Your task to perform on an android device: open app "Roku - Official Remote Control" (install if not already installed) Image 0: 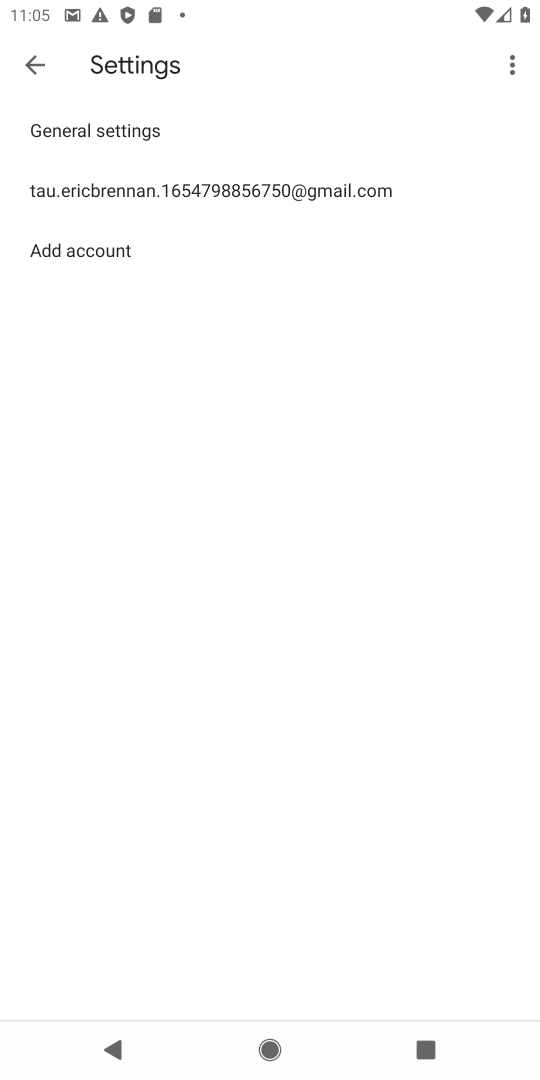
Step 0: press home button
Your task to perform on an android device: open app "Roku - Official Remote Control" (install if not already installed) Image 1: 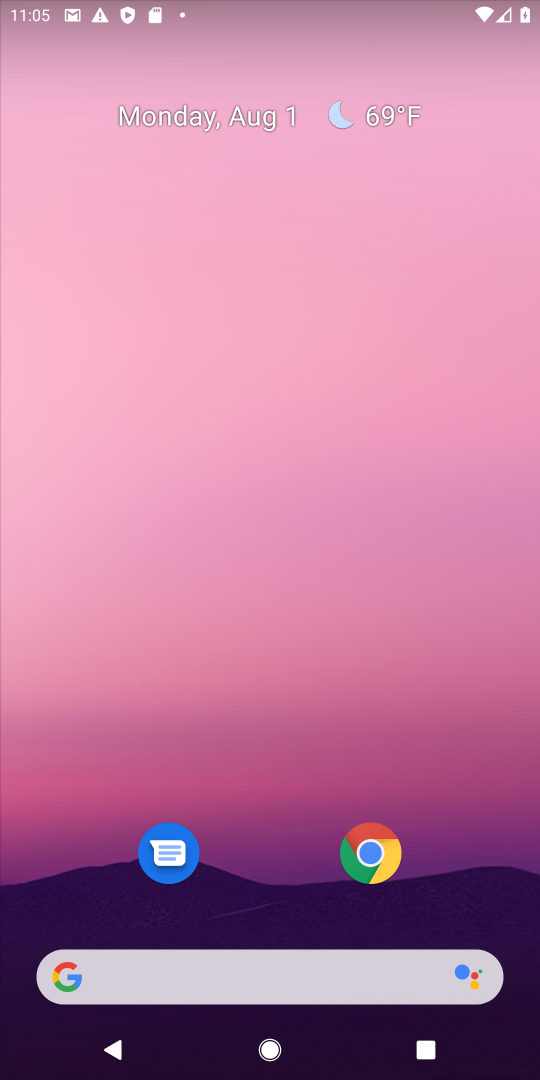
Step 1: drag from (168, 816) to (316, 74)
Your task to perform on an android device: open app "Roku - Official Remote Control" (install if not already installed) Image 2: 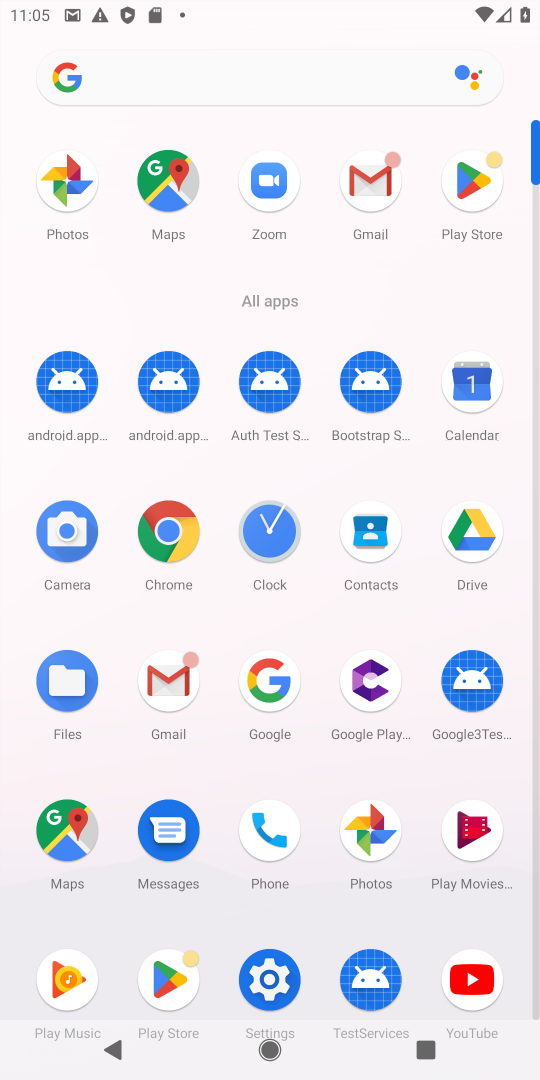
Step 2: click (465, 157)
Your task to perform on an android device: open app "Roku - Official Remote Control" (install if not already installed) Image 3: 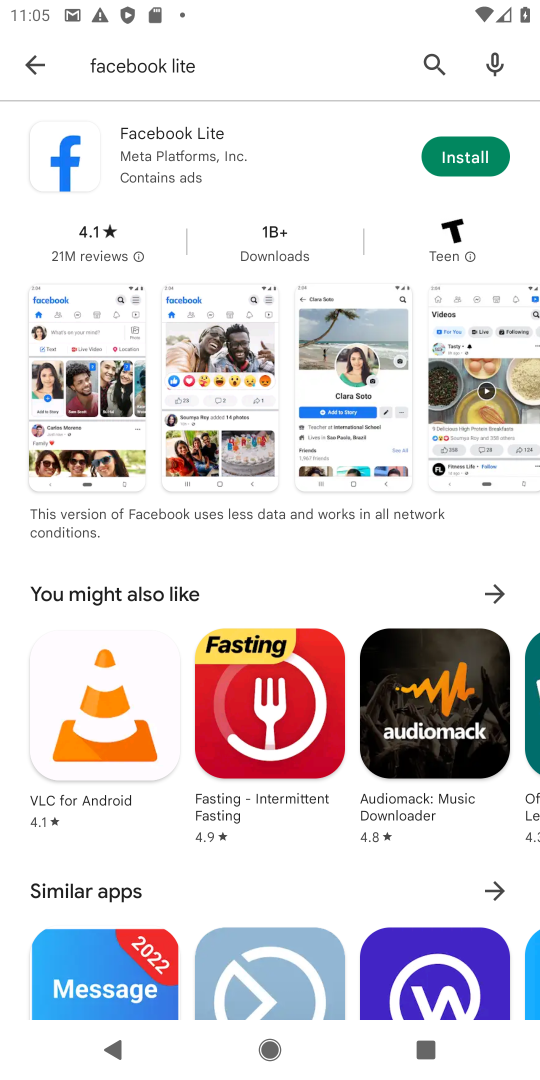
Step 3: click (438, 59)
Your task to perform on an android device: open app "Roku - Official Remote Control" (install if not already installed) Image 4: 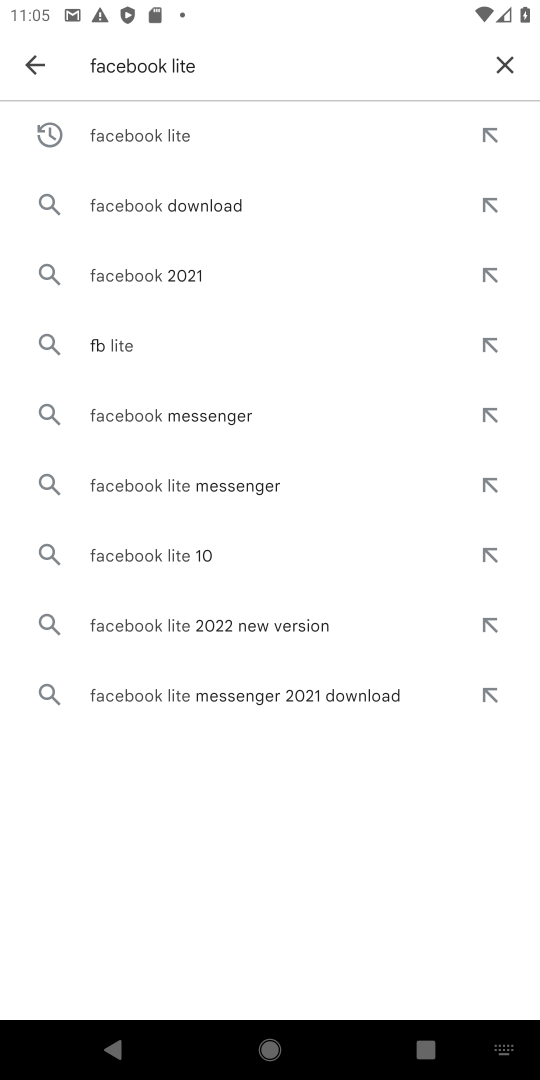
Step 4: click (492, 57)
Your task to perform on an android device: open app "Roku - Official Remote Control" (install if not already installed) Image 5: 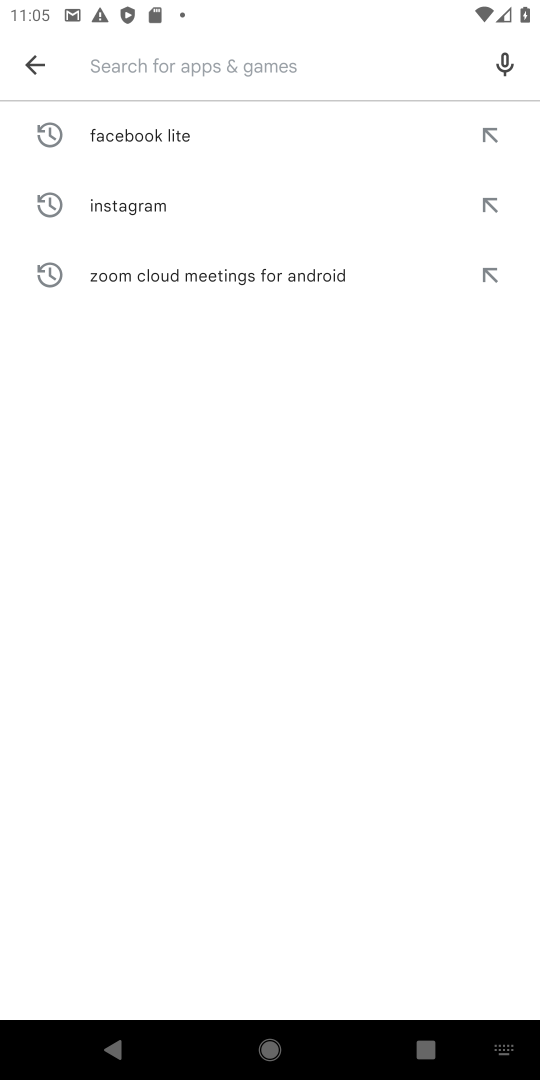
Step 5: type "Roku"
Your task to perform on an android device: open app "Roku - Official Remote Control" (install if not already installed) Image 6: 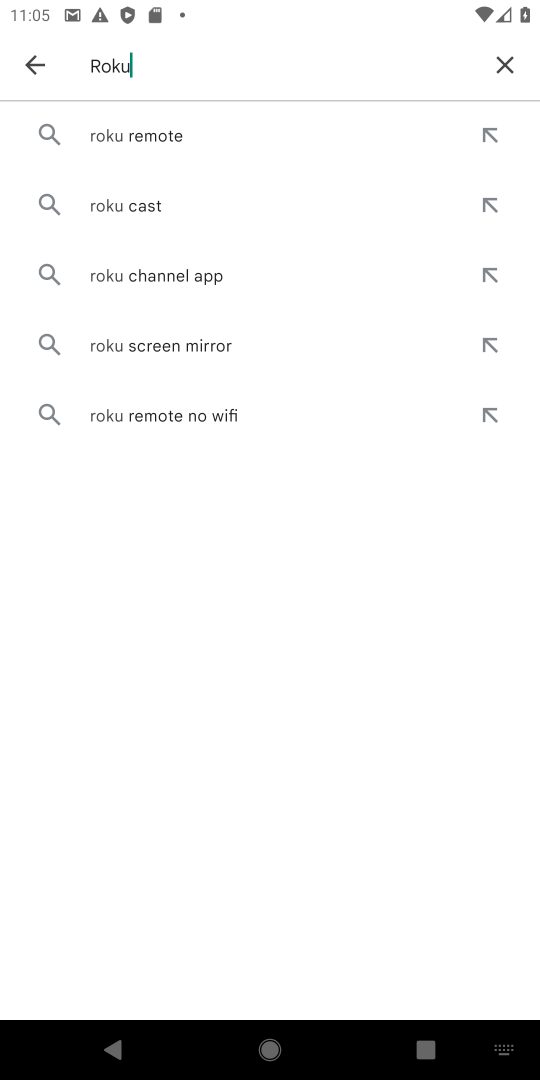
Step 6: click (222, 126)
Your task to perform on an android device: open app "Roku - Official Remote Control" (install if not already installed) Image 7: 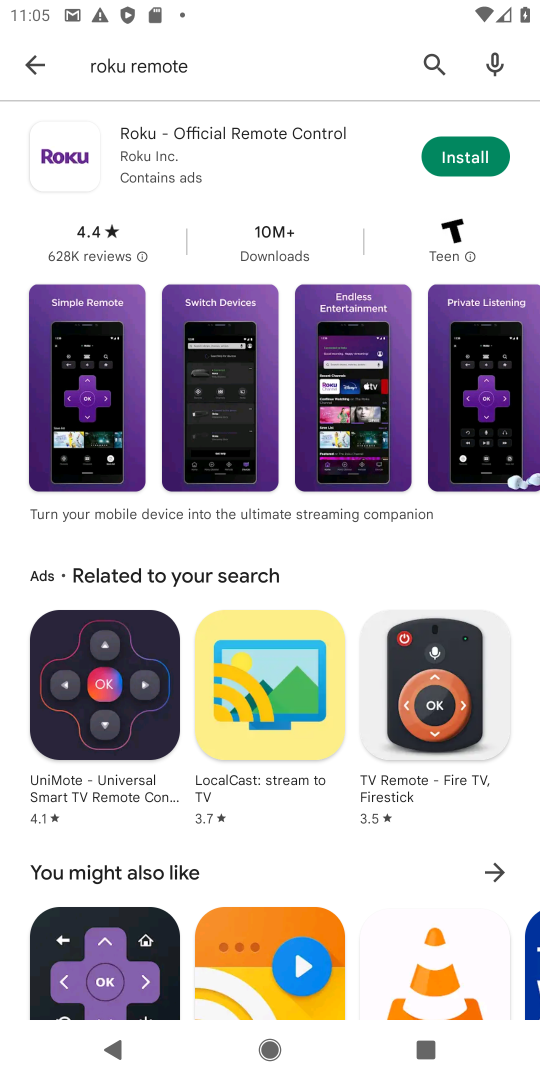
Step 7: click (441, 149)
Your task to perform on an android device: open app "Roku - Official Remote Control" (install if not already installed) Image 8: 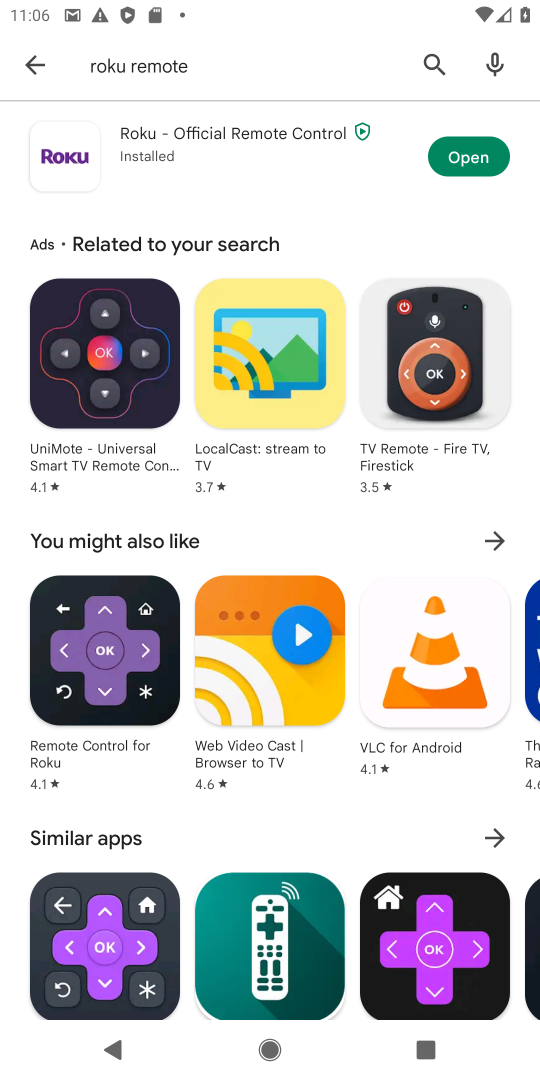
Step 8: click (433, 161)
Your task to perform on an android device: open app "Roku - Official Remote Control" (install if not already installed) Image 9: 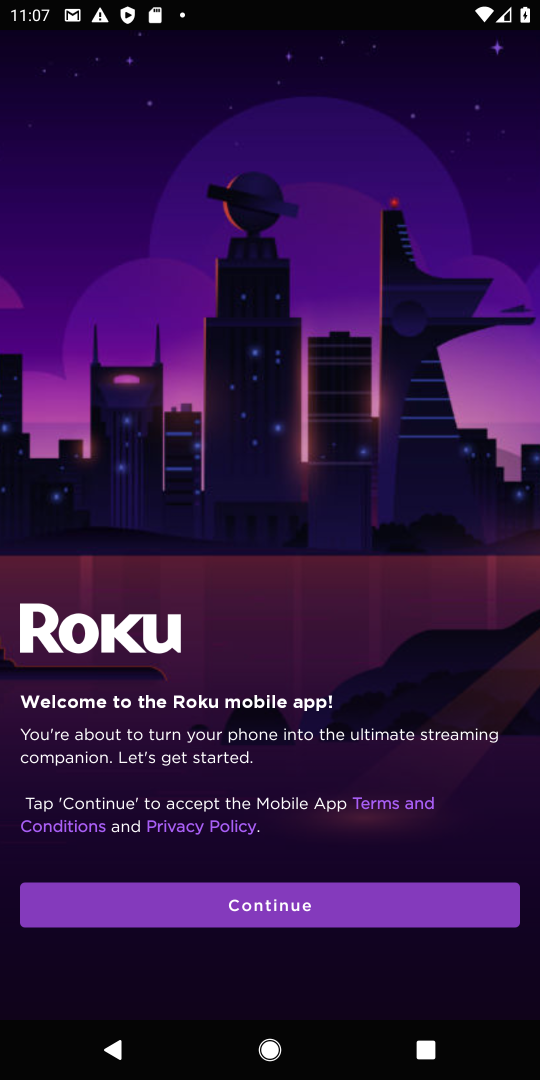
Step 9: task complete